Your task to perform on an android device: Open the stopwatch Image 0: 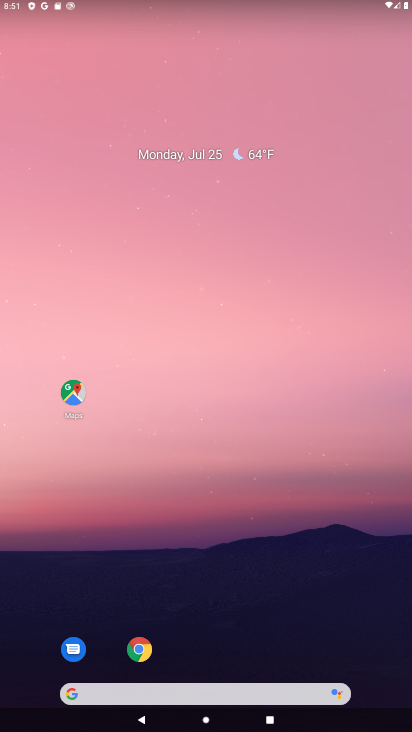
Step 0: drag from (293, 638) to (165, 87)
Your task to perform on an android device: Open the stopwatch Image 1: 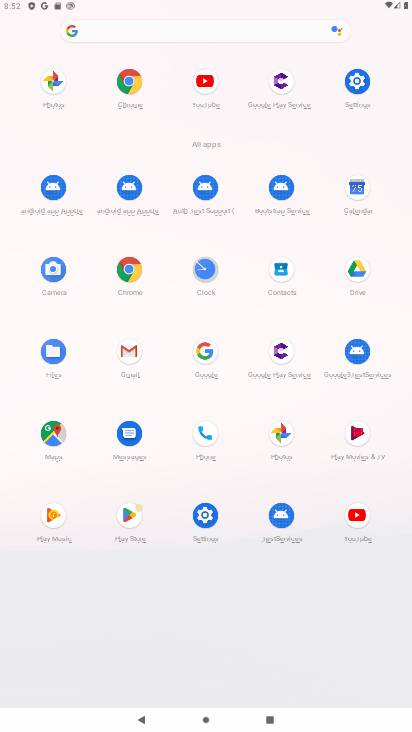
Step 1: click (210, 264)
Your task to perform on an android device: Open the stopwatch Image 2: 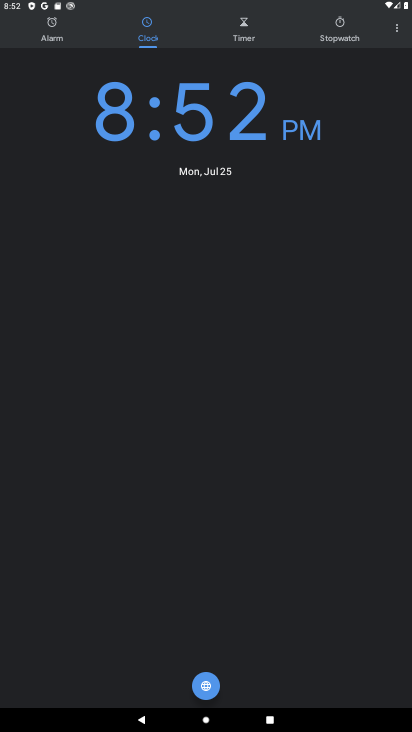
Step 2: click (348, 32)
Your task to perform on an android device: Open the stopwatch Image 3: 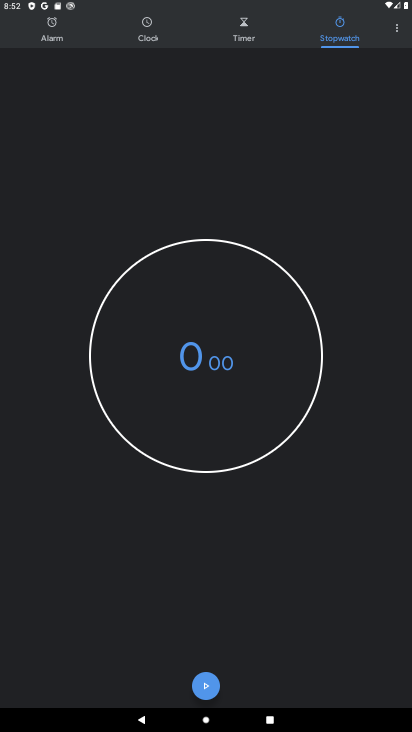
Step 3: task complete